Your task to perform on an android device: open chrome and create a bookmark for the current page Image 0: 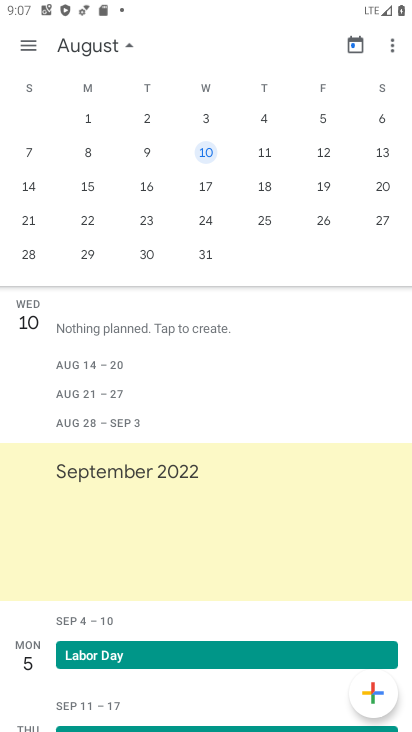
Step 0: press home button
Your task to perform on an android device: open chrome and create a bookmark for the current page Image 1: 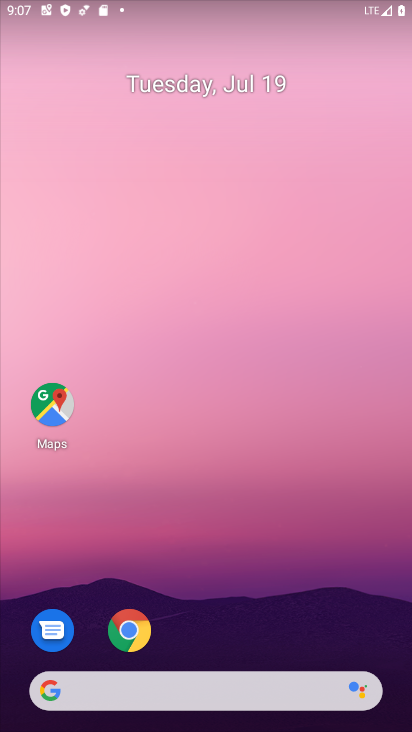
Step 1: click (127, 635)
Your task to perform on an android device: open chrome and create a bookmark for the current page Image 2: 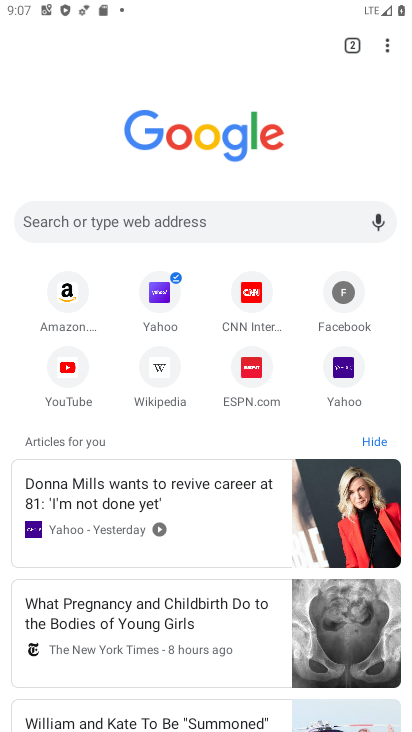
Step 2: click (383, 45)
Your task to perform on an android device: open chrome and create a bookmark for the current page Image 3: 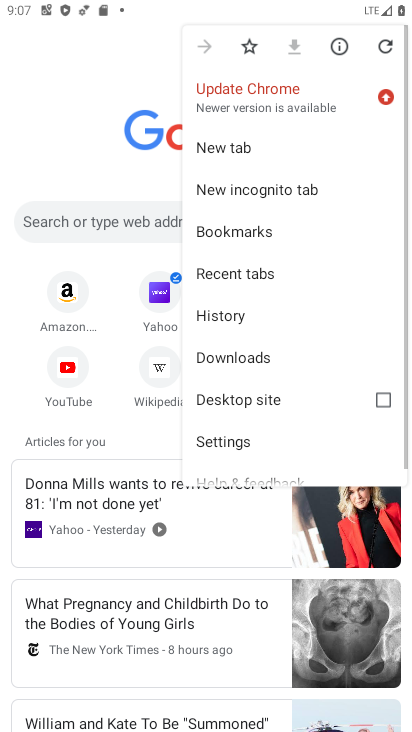
Step 3: click (263, 231)
Your task to perform on an android device: open chrome and create a bookmark for the current page Image 4: 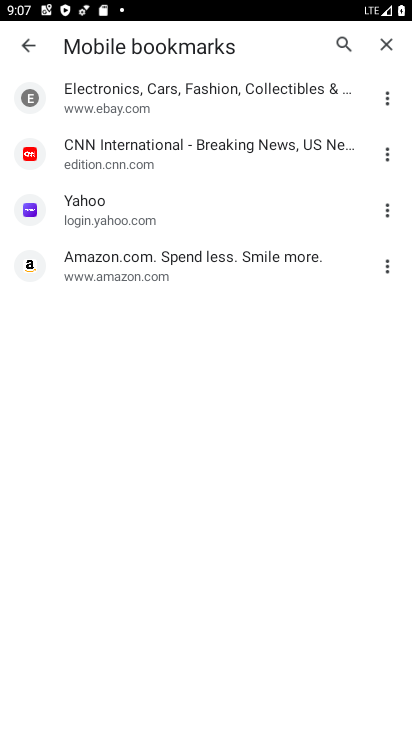
Step 4: click (78, 206)
Your task to perform on an android device: open chrome and create a bookmark for the current page Image 5: 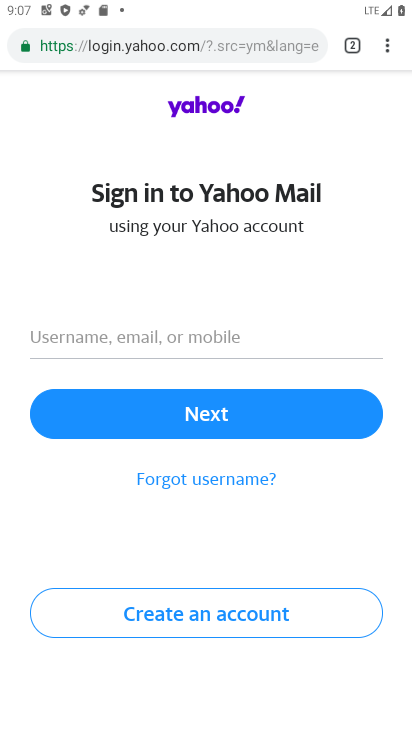
Step 5: task complete